Your task to perform on an android device: turn pop-ups on in chrome Image 0: 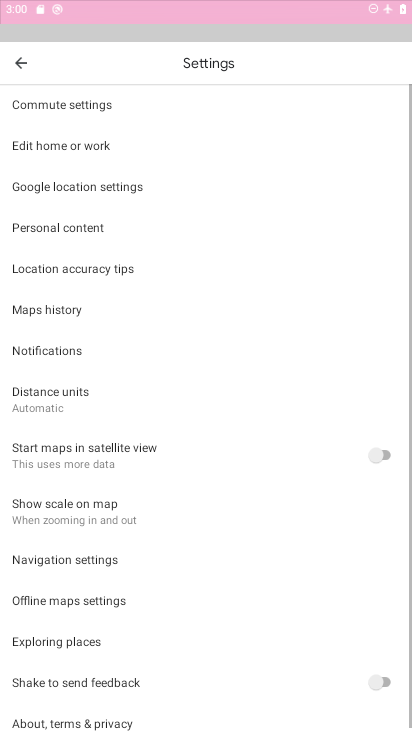
Step 0: click (198, 35)
Your task to perform on an android device: turn pop-ups on in chrome Image 1: 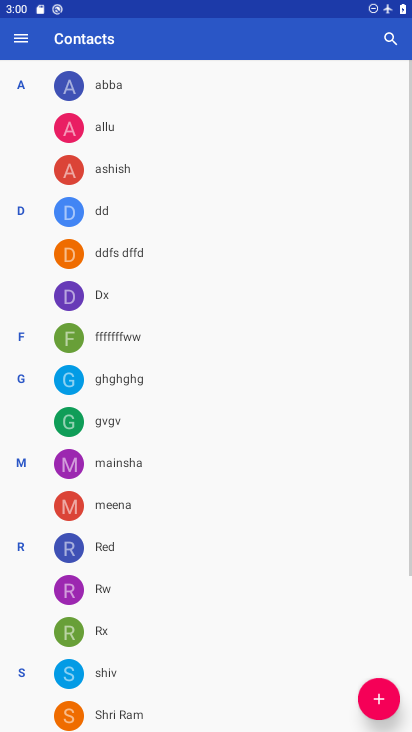
Step 1: press home button
Your task to perform on an android device: turn pop-ups on in chrome Image 2: 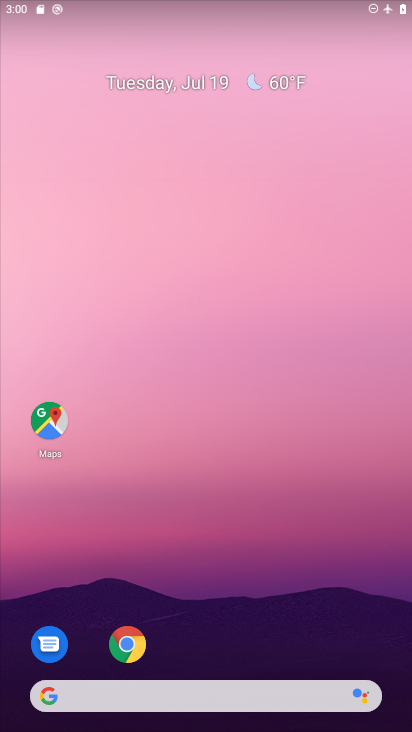
Step 2: drag from (242, 658) to (245, 137)
Your task to perform on an android device: turn pop-ups on in chrome Image 3: 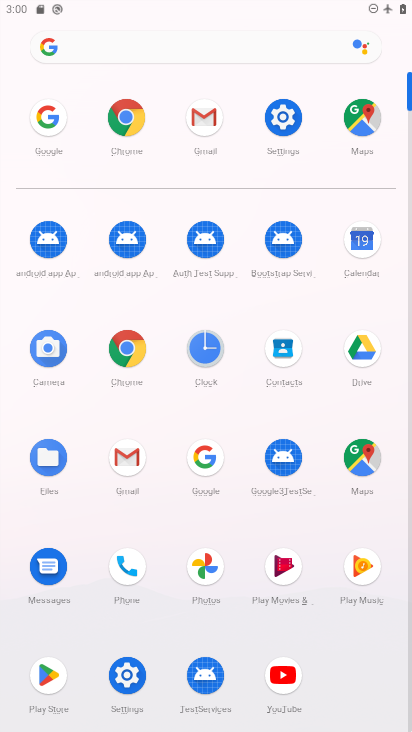
Step 3: click (100, 128)
Your task to perform on an android device: turn pop-ups on in chrome Image 4: 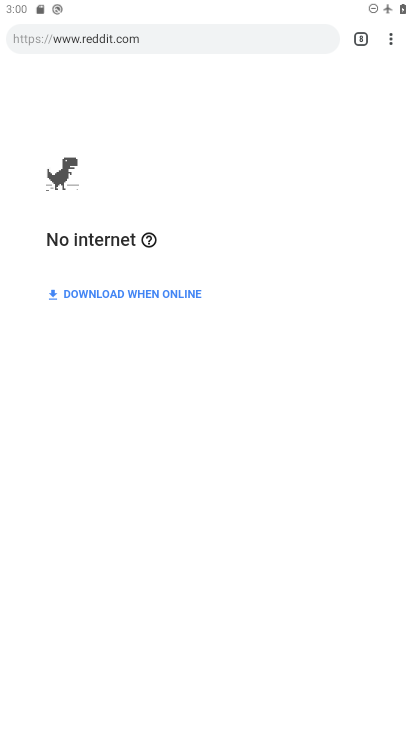
Step 4: click (386, 33)
Your task to perform on an android device: turn pop-ups on in chrome Image 5: 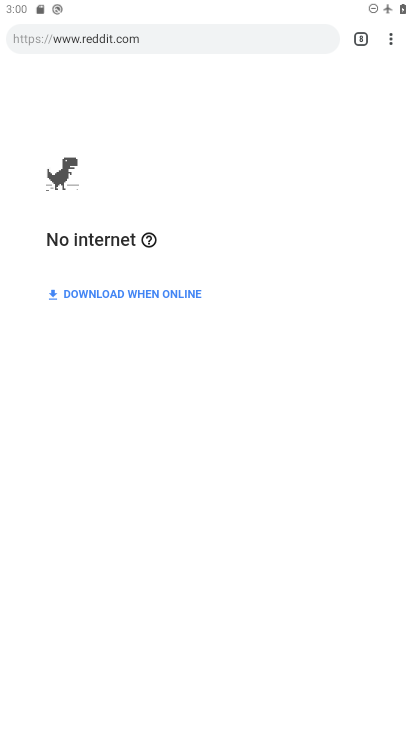
Step 5: click (398, 37)
Your task to perform on an android device: turn pop-ups on in chrome Image 6: 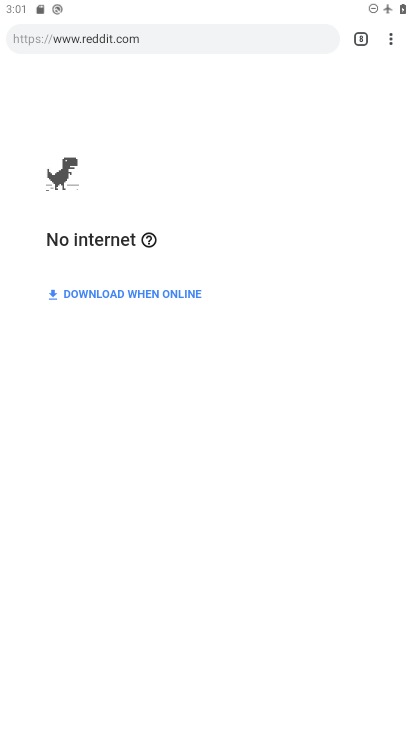
Step 6: drag from (392, 38) to (225, 430)
Your task to perform on an android device: turn pop-ups on in chrome Image 7: 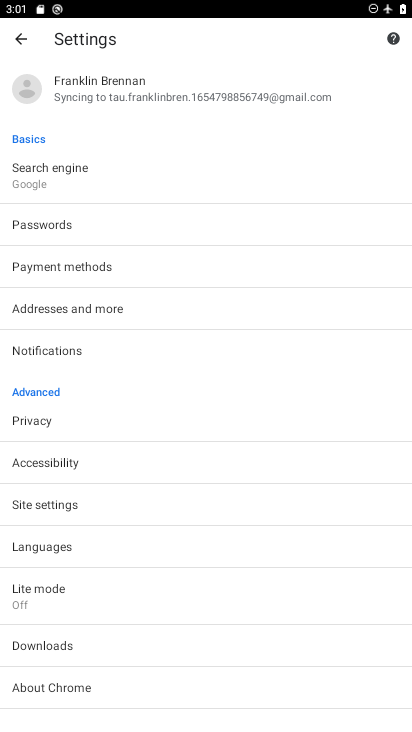
Step 7: click (58, 509)
Your task to perform on an android device: turn pop-ups on in chrome Image 8: 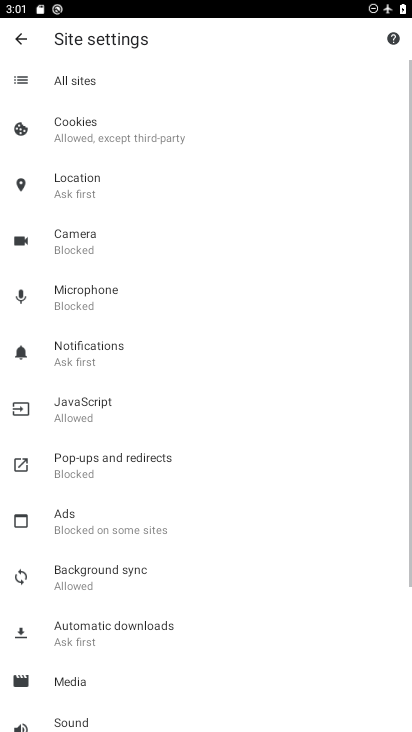
Step 8: click (112, 451)
Your task to perform on an android device: turn pop-ups on in chrome Image 9: 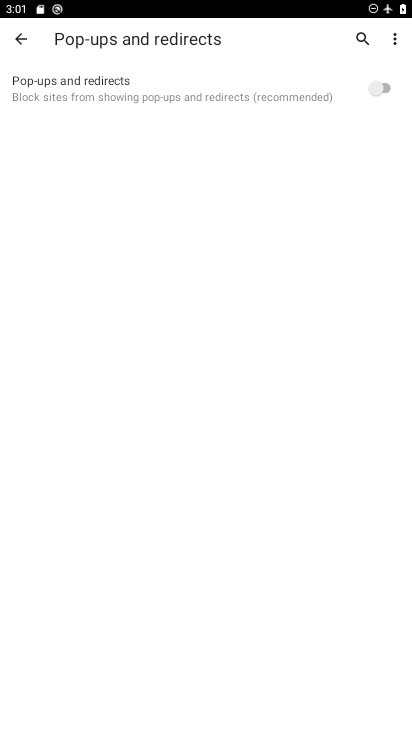
Step 9: click (385, 87)
Your task to perform on an android device: turn pop-ups on in chrome Image 10: 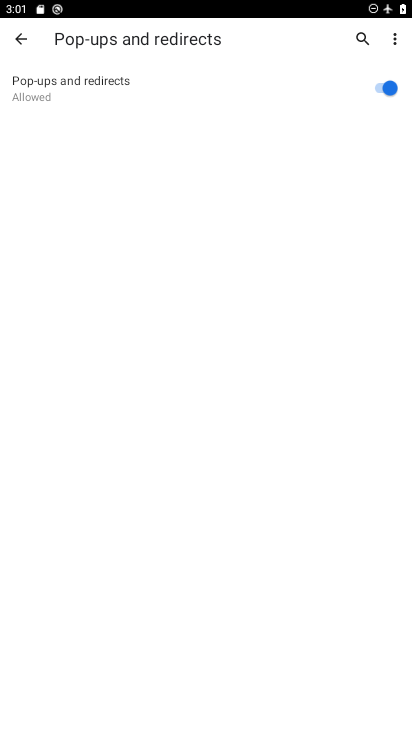
Step 10: task complete